Your task to perform on an android device: Open Google Chrome and open the bookmarks view Image 0: 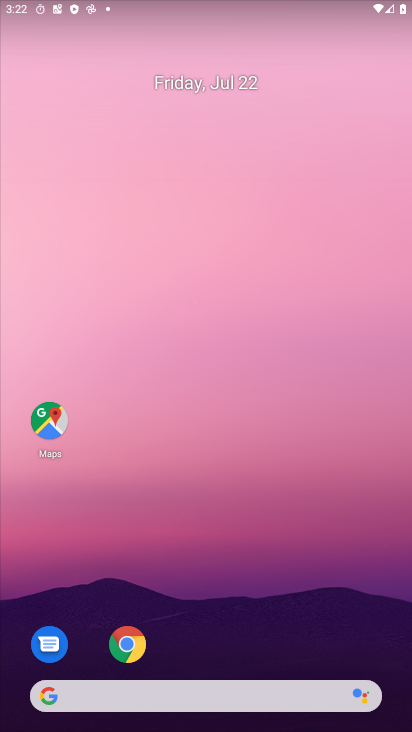
Step 0: drag from (218, 672) to (242, 218)
Your task to perform on an android device: Open Google Chrome and open the bookmarks view Image 1: 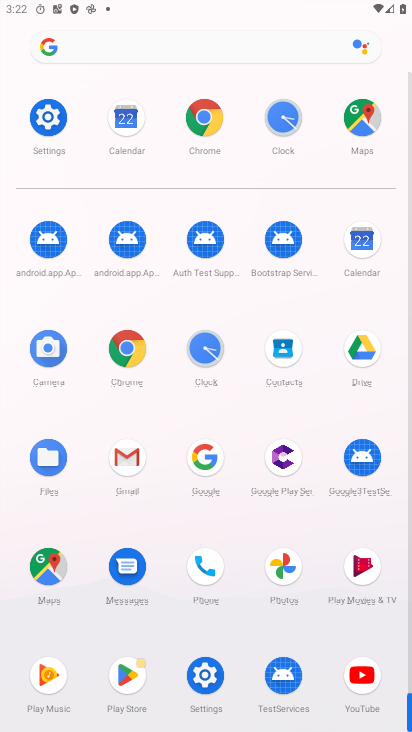
Step 1: click (132, 372)
Your task to perform on an android device: Open Google Chrome and open the bookmarks view Image 2: 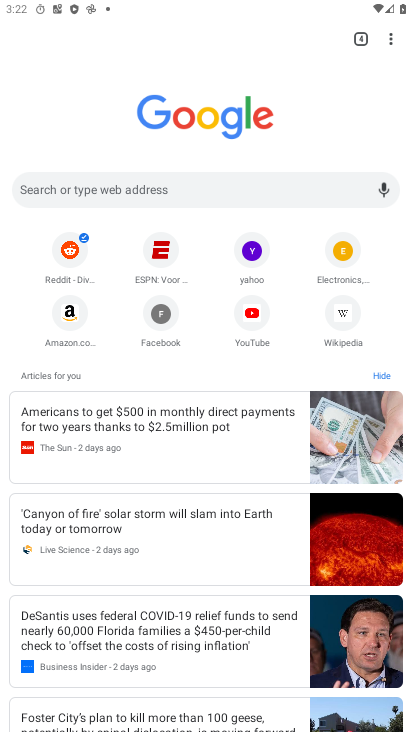
Step 2: click (393, 41)
Your task to perform on an android device: Open Google Chrome and open the bookmarks view Image 3: 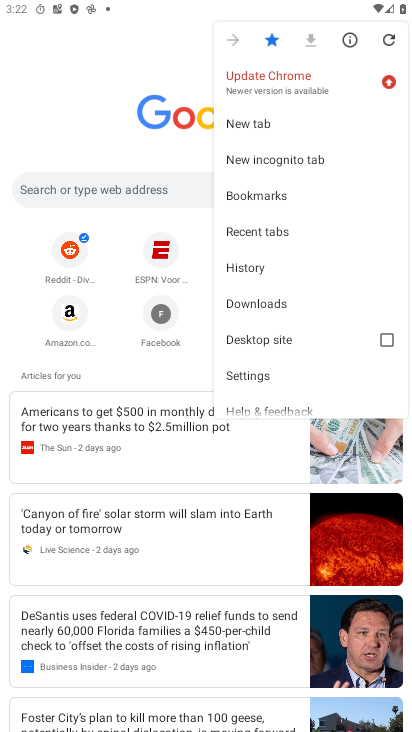
Step 3: click (279, 194)
Your task to perform on an android device: Open Google Chrome and open the bookmarks view Image 4: 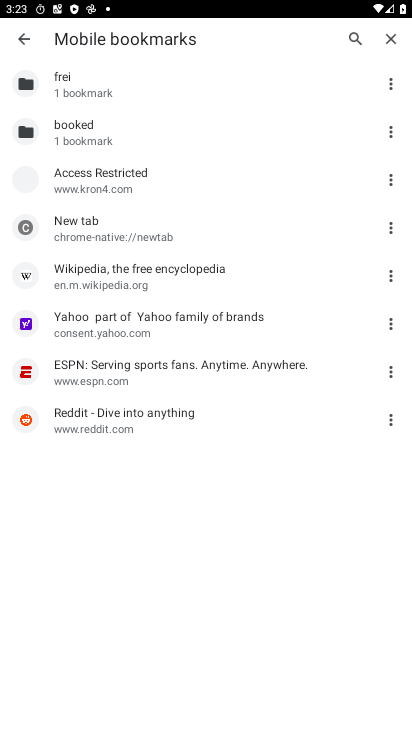
Step 4: task complete